Your task to perform on an android device: turn vacation reply on in the gmail app Image 0: 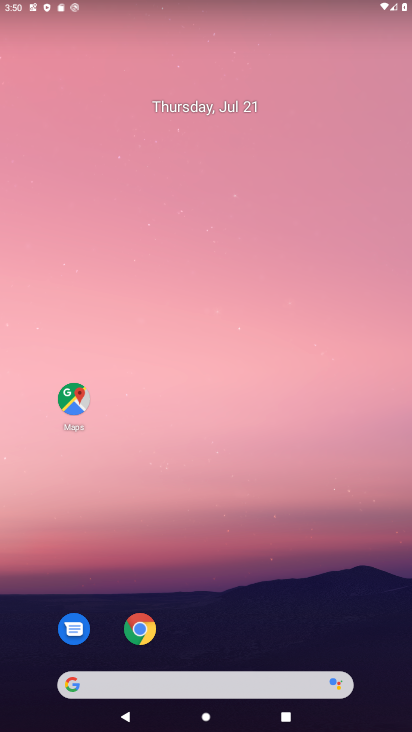
Step 0: drag from (252, 585) to (281, 106)
Your task to perform on an android device: turn vacation reply on in the gmail app Image 1: 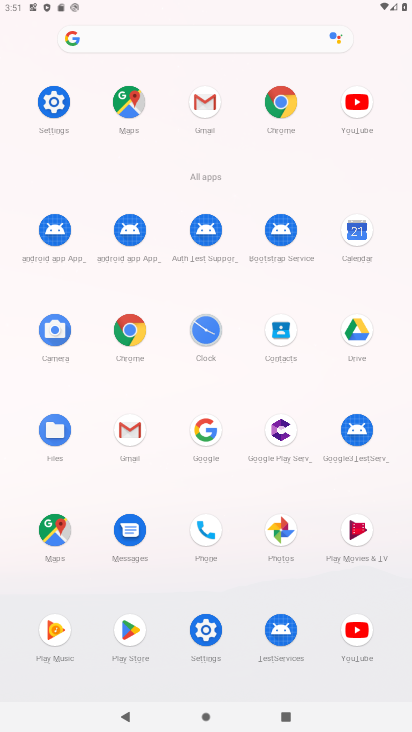
Step 1: click (202, 101)
Your task to perform on an android device: turn vacation reply on in the gmail app Image 2: 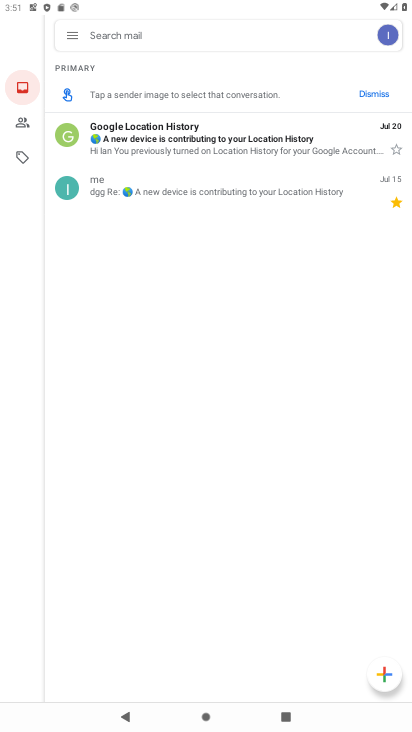
Step 2: click (69, 32)
Your task to perform on an android device: turn vacation reply on in the gmail app Image 3: 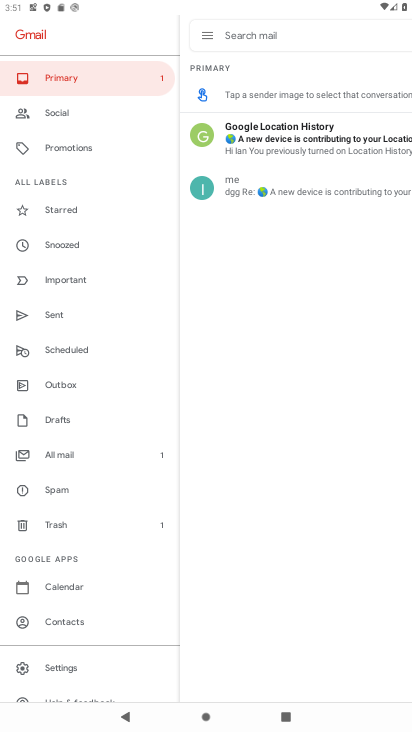
Step 3: click (69, 667)
Your task to perform on an android device: turn vacation reply on in the gmail app Image 4: 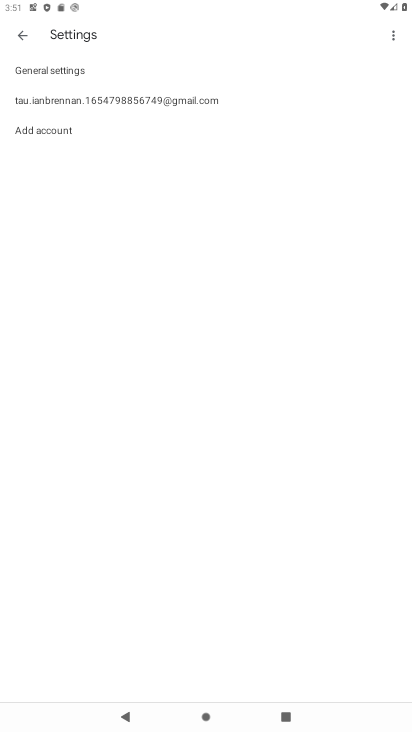
Step 4: click (102, 98)
Your task to perform on an android device: turn vacation reply on in the gmail app Image 5: 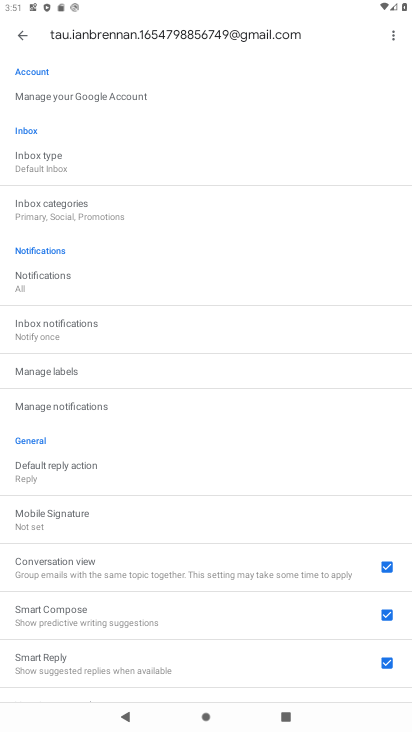
Step 5: drag from (121, 606) to (218, 191)
Your task to perform on an android device: turn vacation reply on in the gmail app Image 6: 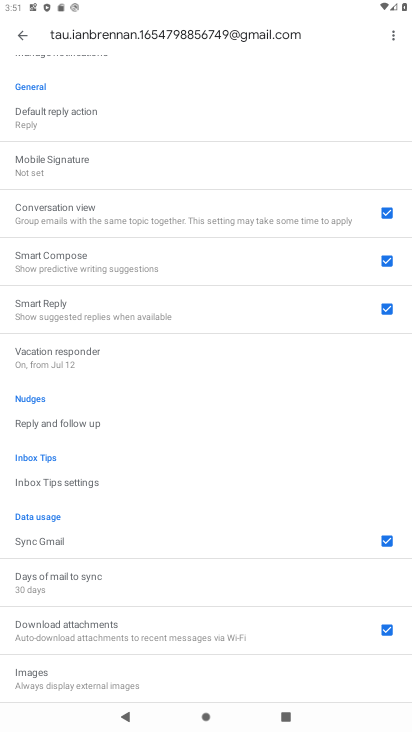
Step 6: click (52, 359)
Your task to perform on an android device: turn vacation reply on in the gmail app Image 7: 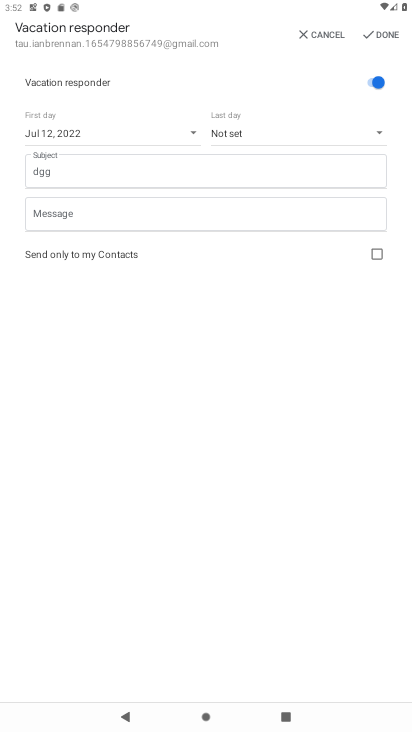
Step 7: task complete